Your task to perform on an android device: add a label to a message in the gmail app Image 0: 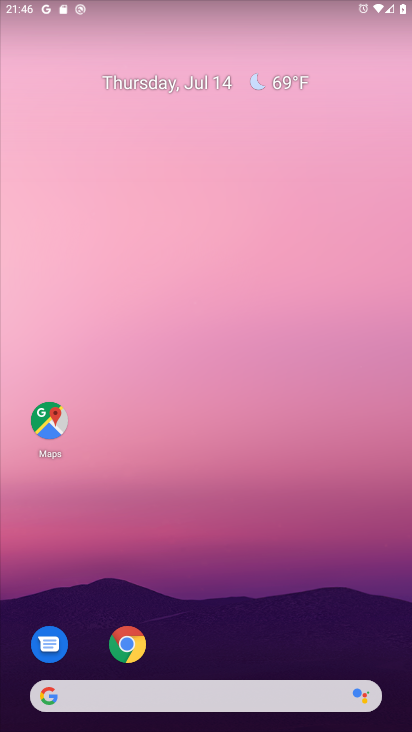
Step 0: drag from (182, 631) to (113, 98)
Your task to perform on an android device: add a label to a message in the gmail app Image 1: 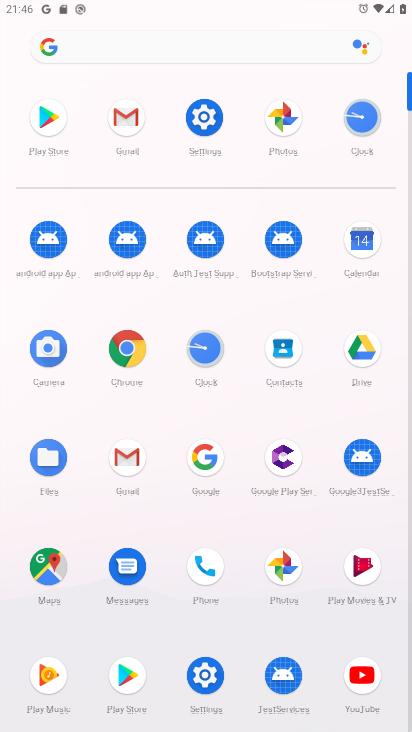
Step 1: click (133, 113)
Your task to perform on an android device: add a label to a message in the gmail app Image 2: 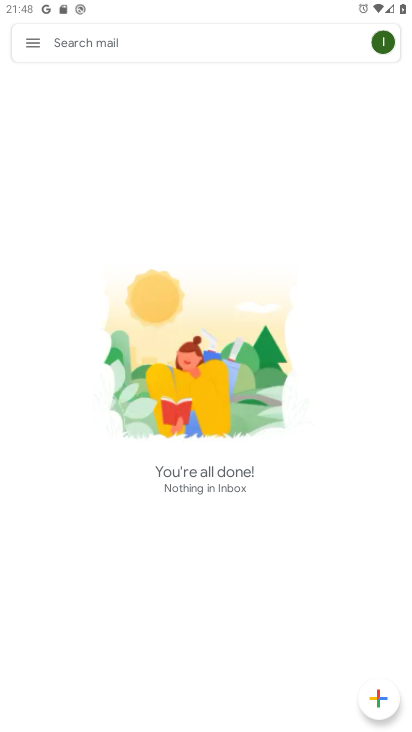
Step 2: task complete